Your task to perform on an android device: turn on the 12-hour format for clock Image 0: 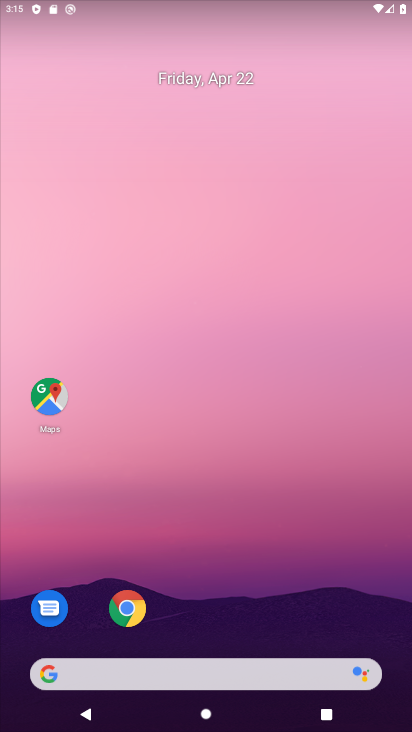
Step 0: drag from (299, 627) to (251, 275)
Your task to perform on an android device: turn on the 12-hour format for clock Image 1: 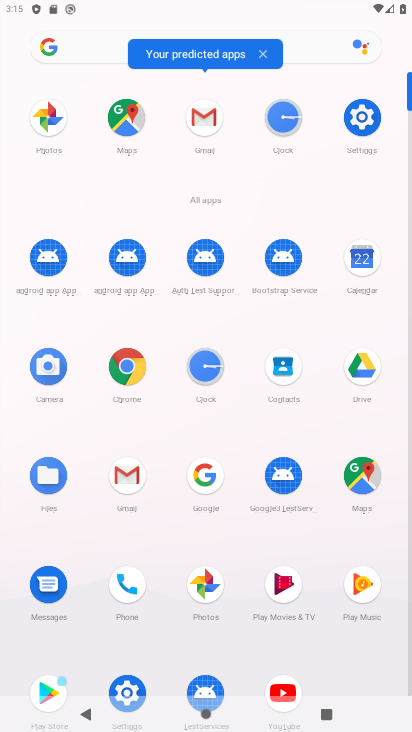
Step 1: click (284, 124)
Your task to perform on an android device: turn on the 12-hour format for clock Image 2: 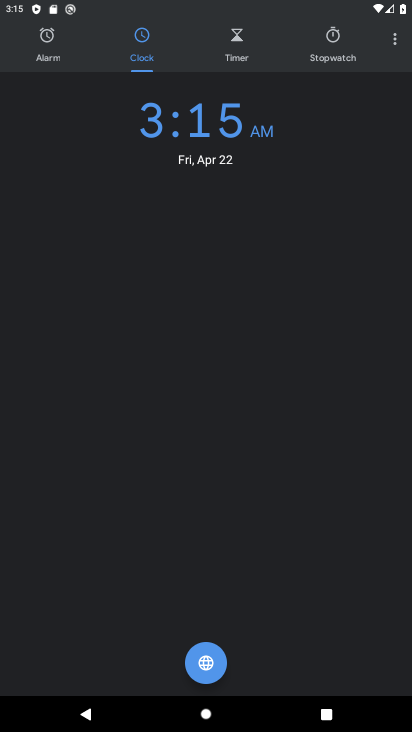
Step 2: click (394, 68)
Your task to perform on an android device: turn on the 12-hour format for clock Image 3: 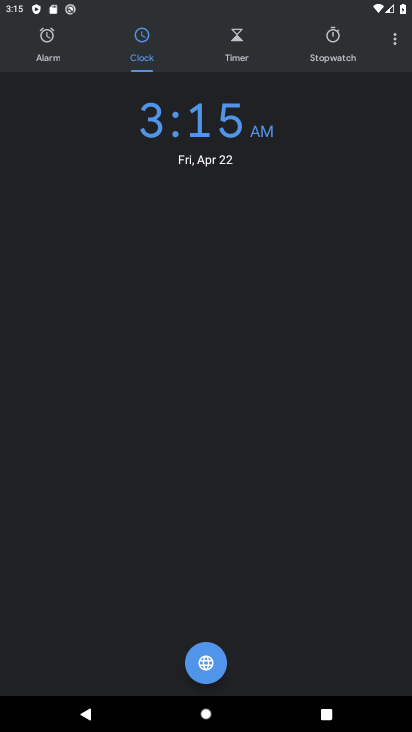
Step 3: click (400, 54)
Your task to perform on an android device: turn on the 12-hour format for clock Image 4: 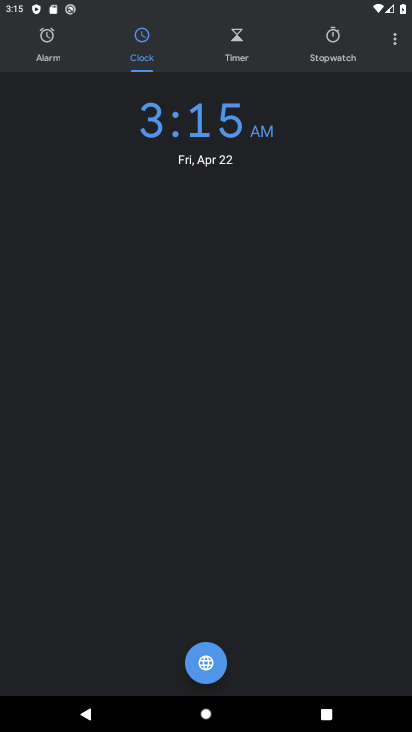
Step 4: click (397, 55)
Your task to perform on an android device: turn on the 12-hour format for clock Image 5: 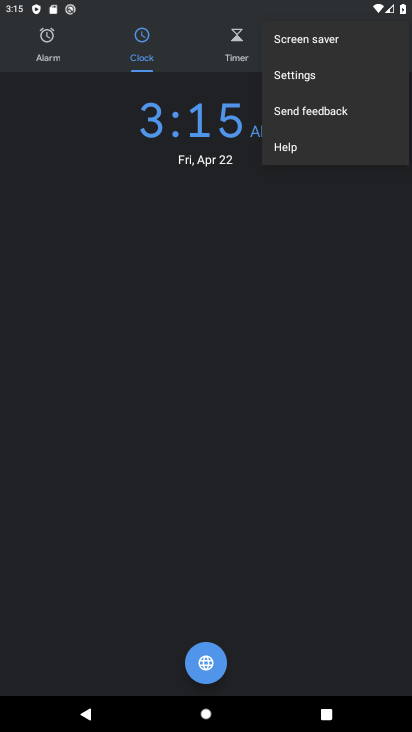
Step 5: click (351, 84)
Your task to perform on an android device: turn on the 12-hour format for clock Image 6: 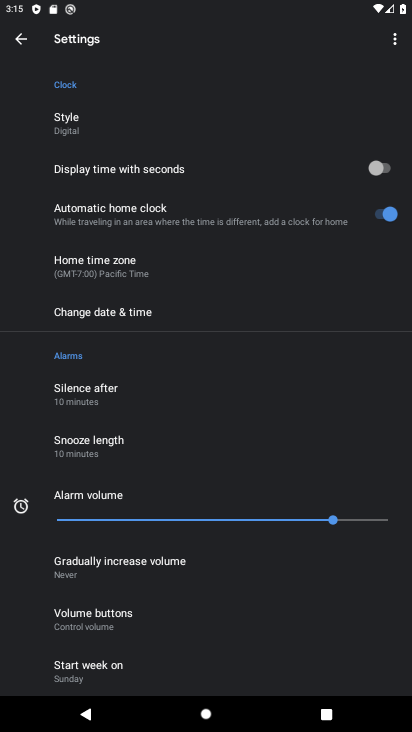
Step 6: click (193, 307)
Your task to perform on an android device: turn on the 12-hour format for clock Image 7: 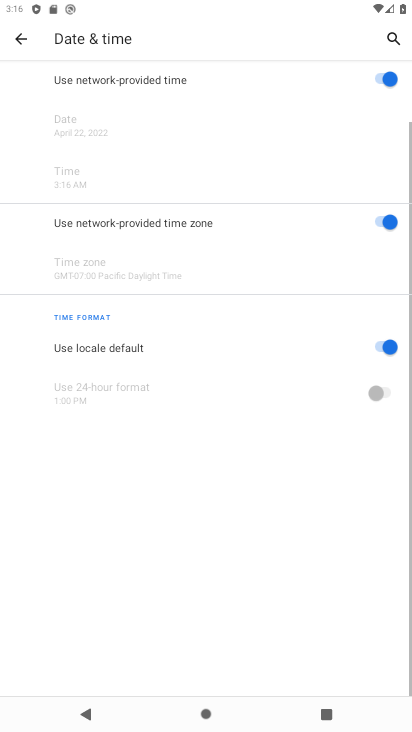
Step 7: task complete